Your task to perform on an android device: toggle data saver in the chrome app Image 0: 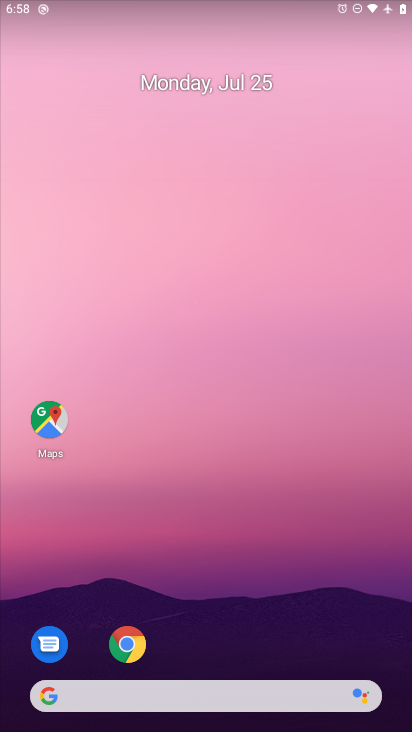
Step 0: press home button
Your task to perform on an android device: toggle data saver in the chrome app Image 1: 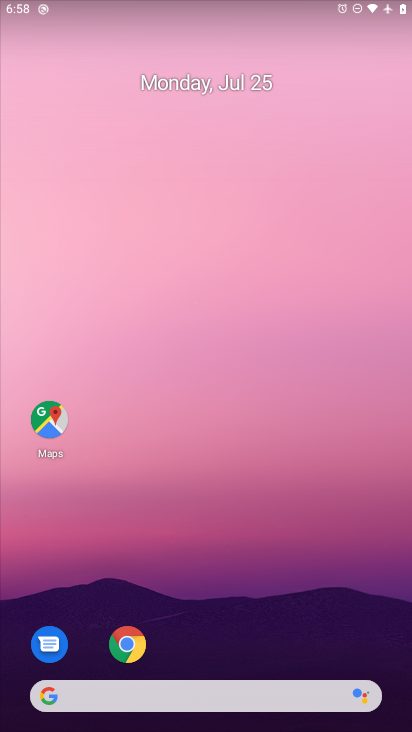
Step 1: drag from (237, 615) to (328, 146)
Your task to perform on an android device: toggle data saver in the chrome app Image 2: 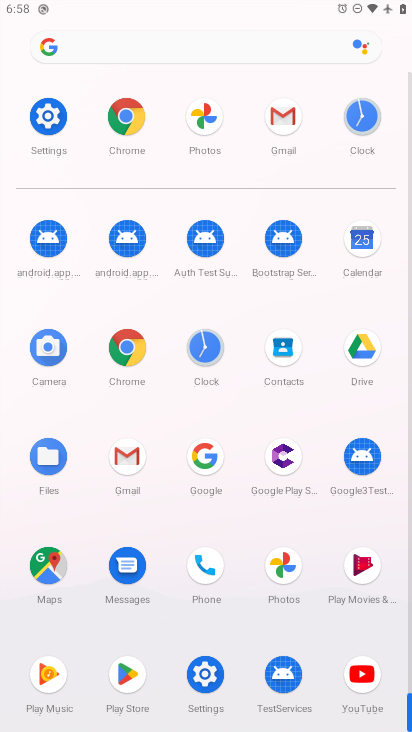
Step 2: click (121, 109)
Your task to perform on an android device: toggle data saver in the chrome app Image 3: 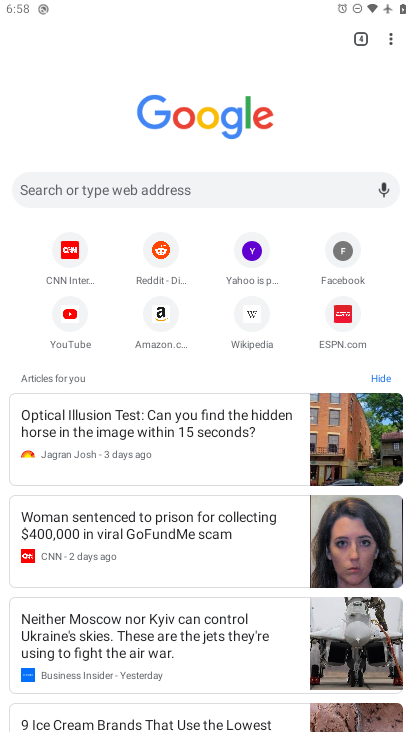
Step 3: drag from (392, 31) to (251, 327)
Your task to perform on an android device: toggle data saver in the chrome app Image 4: 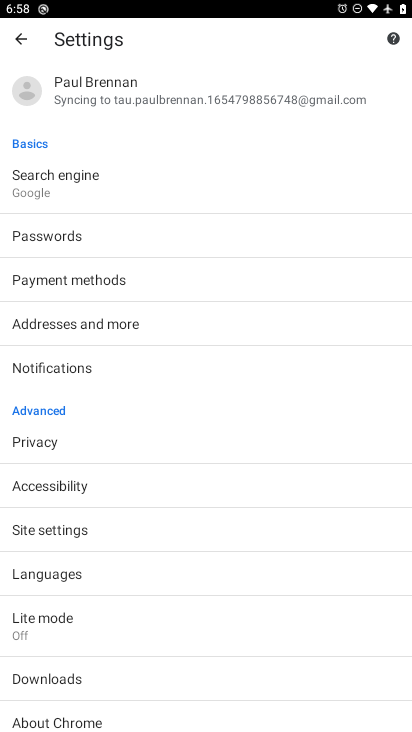
Step 4: click (41, 622)
Your task to perform on an android device: toggle data saver in the chrome app Image 5: 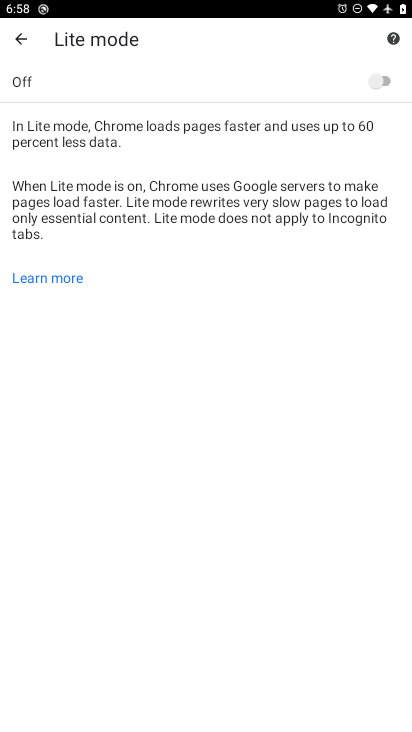
Step 5: click (373, 69)
Your task to perform on an android device: toggle data saver in the chrome app Image 6: 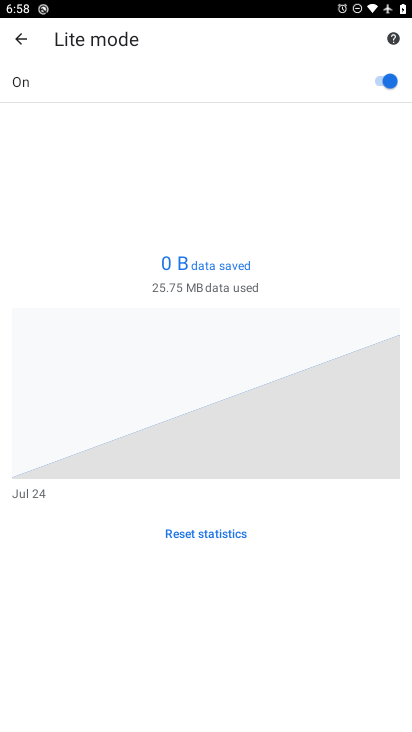
Step 6: task complete